Your task to perform on an android device: turn off translation in the chrome app Image 0: 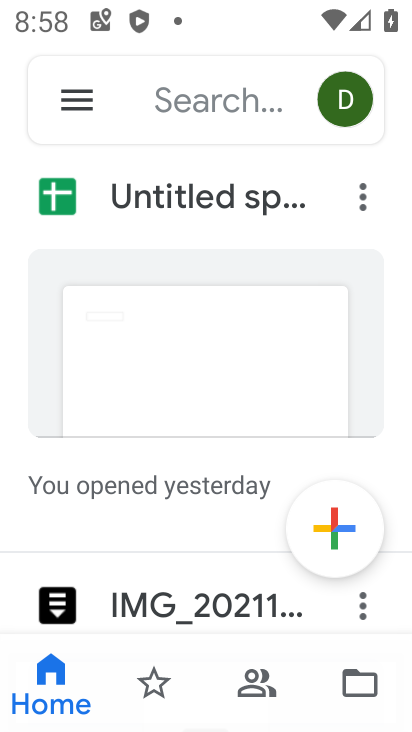
Step 0: press home button
Your task to perform on an android device: turn off translation in the chrome app Image 1: 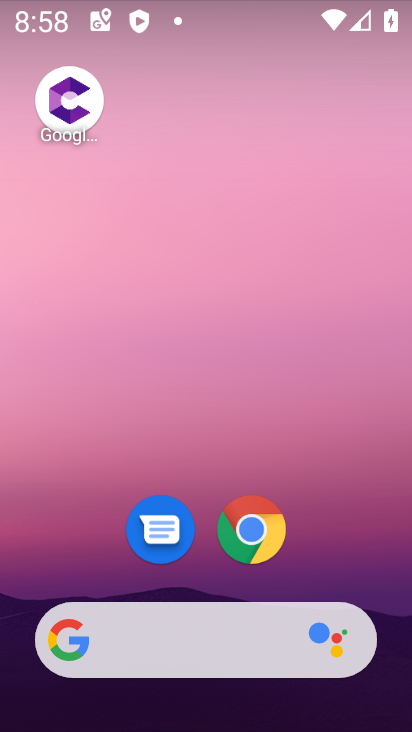
Step 1: drag from (351, 561) to (355, 216)
Your task to perform on an android device: turn off translation in the chrome app Image 2: 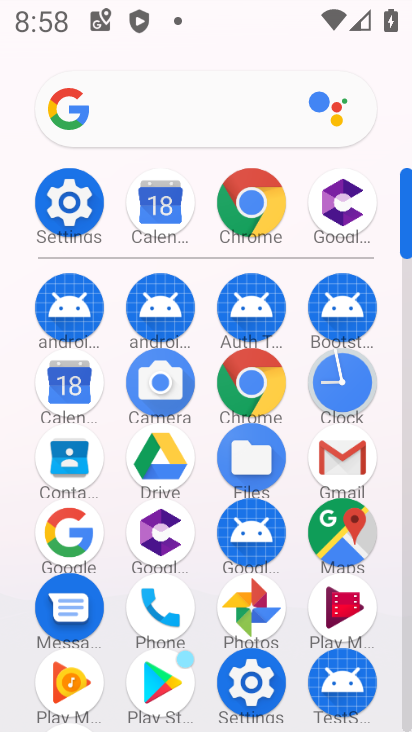
Step 2: click (255, 390)
Your task to perform on an android device: turn off translation in the chrome app Image 3: 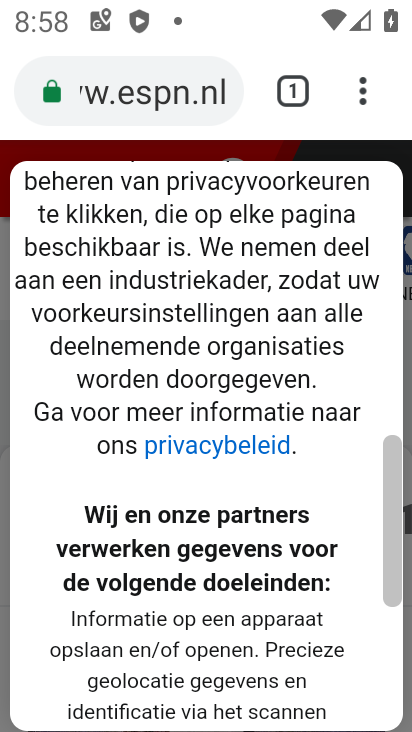
Step 3: click (359, 98)
Your task to perform on an android device: turn off translation in the chrome app Image 4: 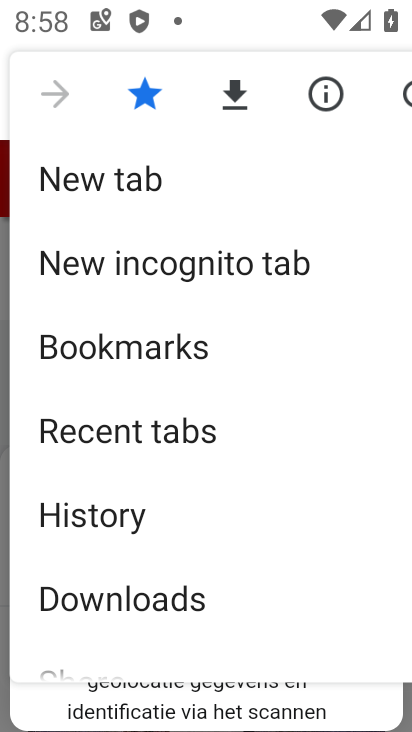
Step 4: drag from (279, 575) to (278, 452)
Your task to perform on an android device: turn off translation in the chrome app Image 5: 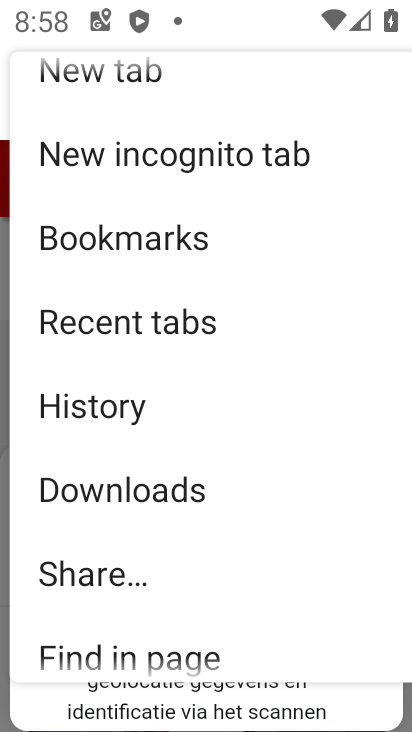
Step 5: drag from (278, 584) to (304, 476)
Your task to perform on an android device: turn off translation in the chrome app Image 6: 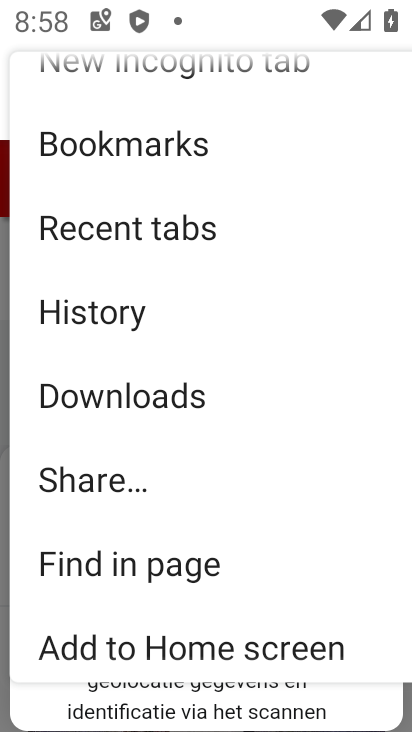
Step 6: drag from (312, 598) to (311, 480)
Your task to perform on an android device: turn off translation in the chrome app Image 7: 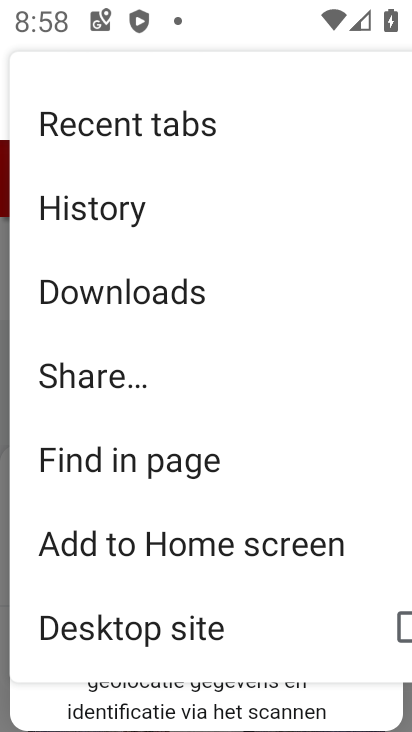
Step 7: drag from (310, 597) to (310, 452)
Your task to perform on an android device: turn off translation in the chrome app Image 8: 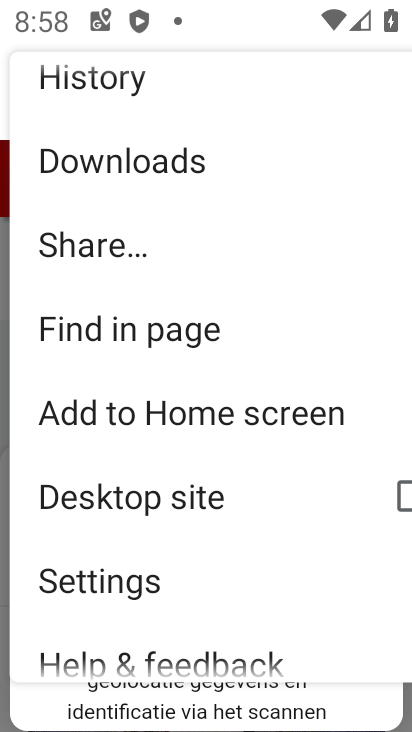
Step 8: drag from (297, 625) to (306, 489)
Your task to perform on an android device: turn off translation in the chrome app Image 9: 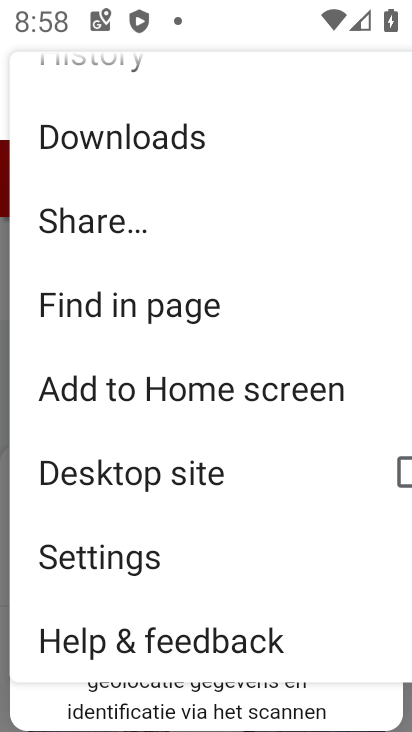
Step 9: click (117, 559)
Your task to perform on an android device: turn off translation in the chrome app Image 10: 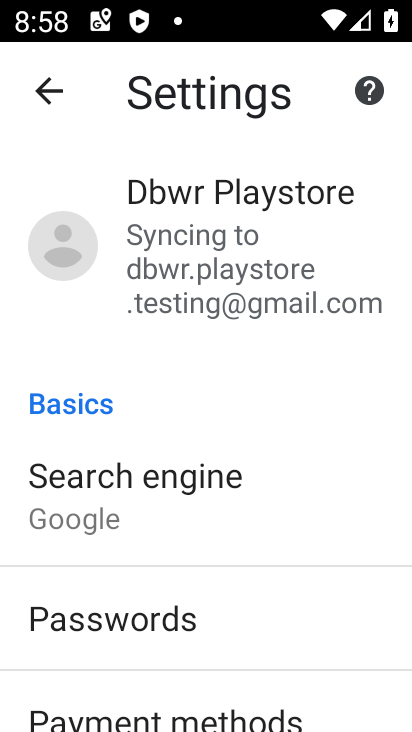
Step 10: drag from (292, 657) to (300, 544)
Your task to perform on an android device: turn off translation in the chrome app Image 11: 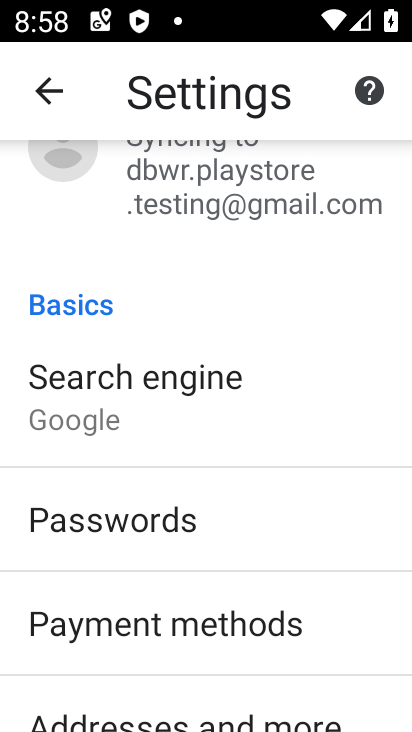
Step 11: drag from (314, 692) to (313, 576)
Your task to perform on an android device: turn off translation in the chrome app Image 12: 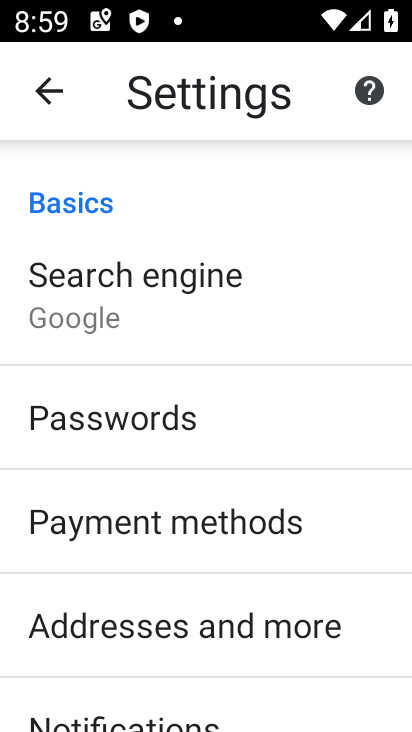
Step 12: drag from (312, 696) to (306, 555)
Your task to perform on an android device: turn off translation in the chrome app Image 13: 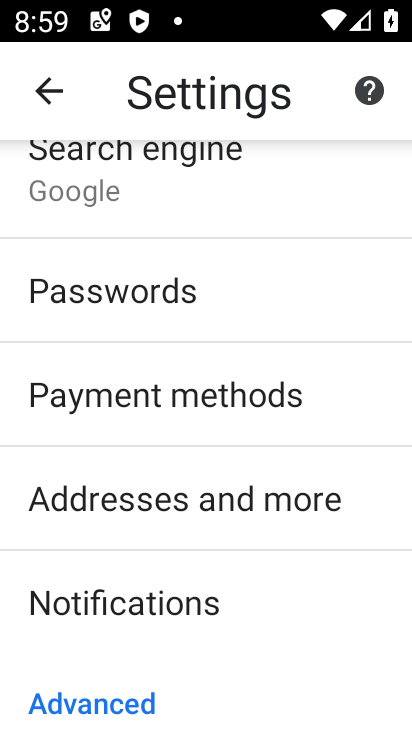
Step 13: drag from (288, 676) to (291, 612)
Your task to perform on an android device: turn off translation in the chrome app Image 14: 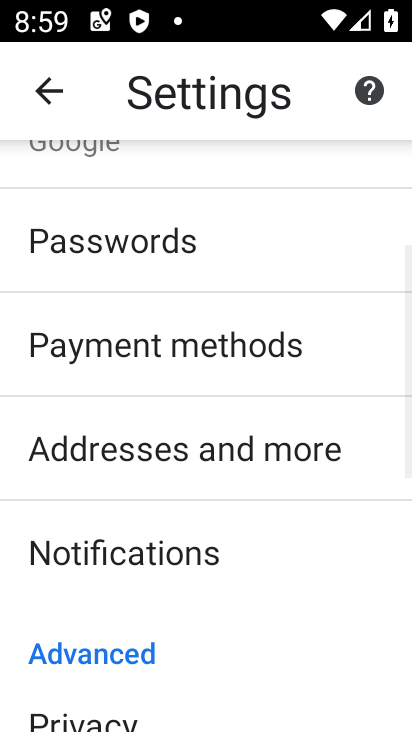
Step 14: drag from (289, 690) to (292, 583)
Your task to perform on an android device: turn off translation in the chrome app Image 15: 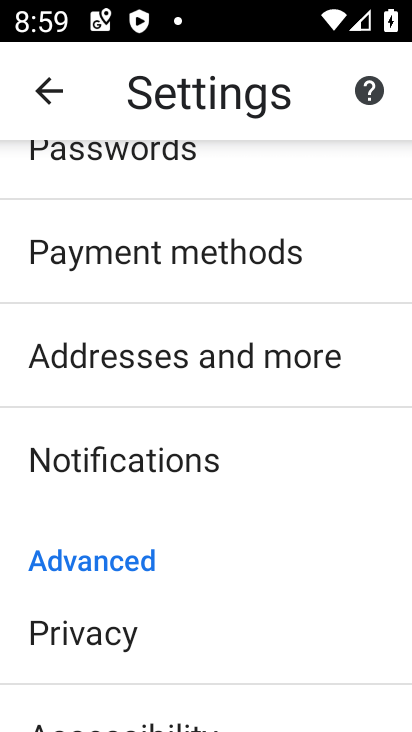
Step 15: drag from (300, 687) to (294, 611)
Your task to perform on an android device: turn off translation in the chrome app Image 16: 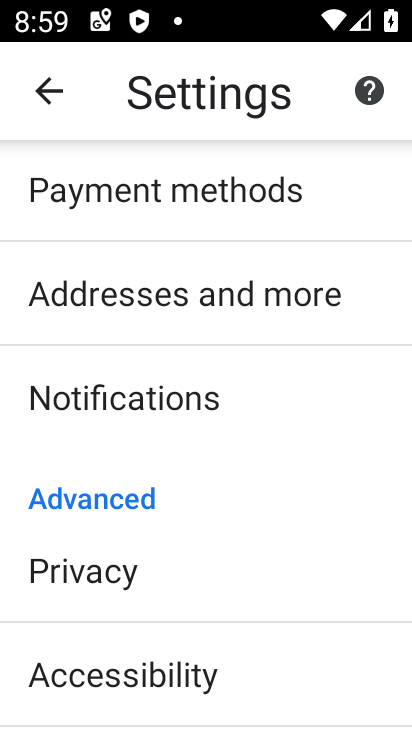
Step 16: drag from (300, 685) to (303, 593)
Your task to perform on an android device: turn off translation in the chrome app Image 17: 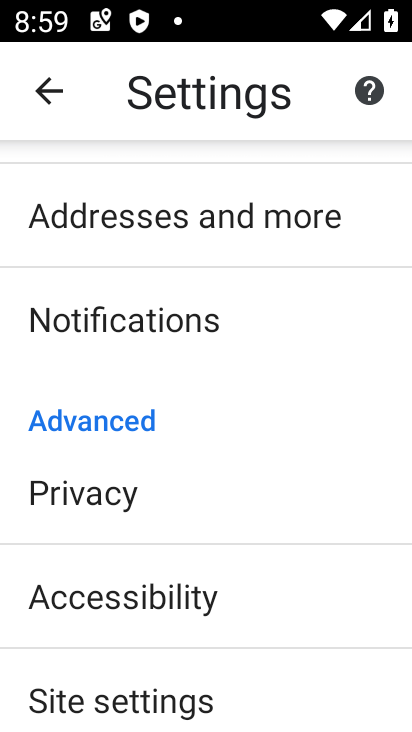
Step 17: drag from (302, 675) to (299, 578)
Your task to perform on an android device: turn off translation in the chrome app Image 18: 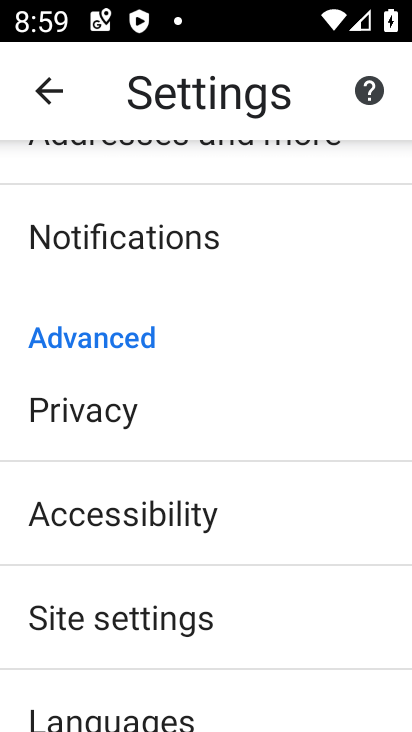
Step 18: drag from (300, 687) to (304, 583)
Your task to perform on an android device: turn off translation in the chrome app Image 19: 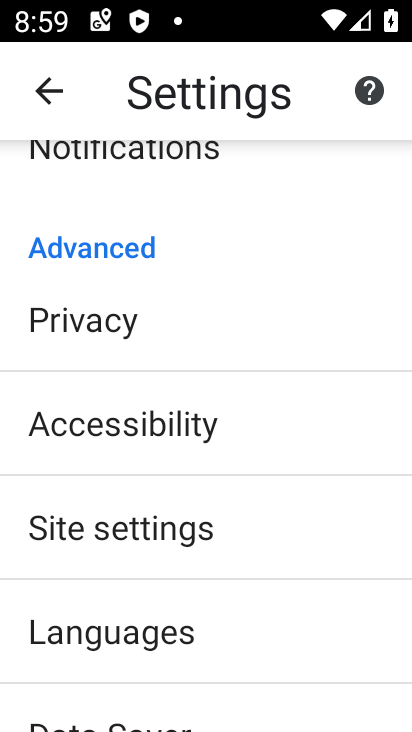
Step 19: drag from (314, 680) to (310, 601)
Your task to perform on an android device: turn off translation in the chrome app Image 20: 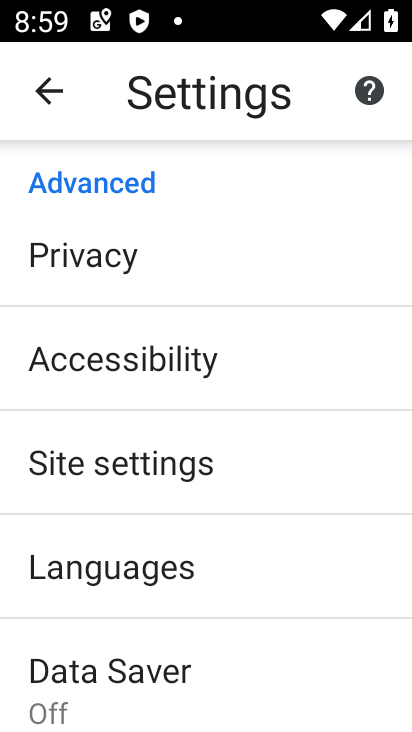
Step 20: drag from (308, 674) to (308, 610)
Your task to perform on an android device: turn off translation in the chrome app Image 21: 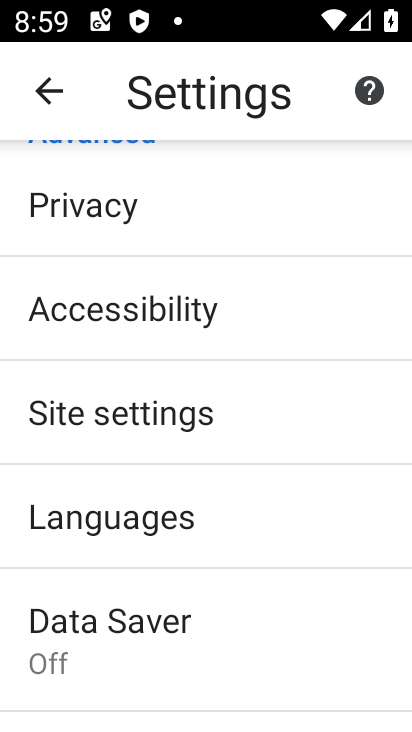
Step 21: click (169, 519)
Your task to perform on an android device: turn off translation in the chrome app Image 22: 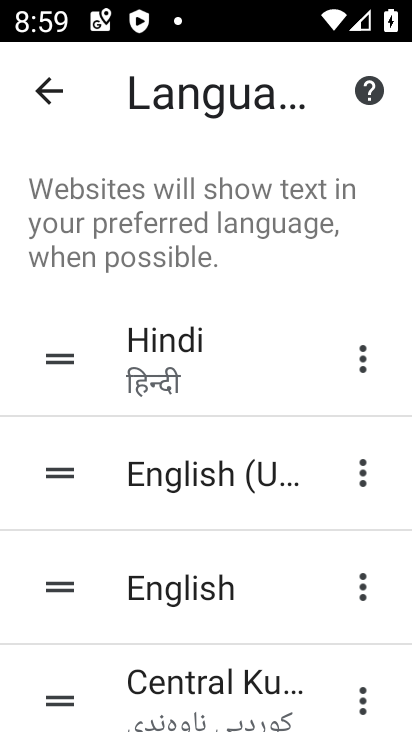
Step 22: task complete